Your task to perform on an android device: Set the phone to "Do not disturb". Image 0: 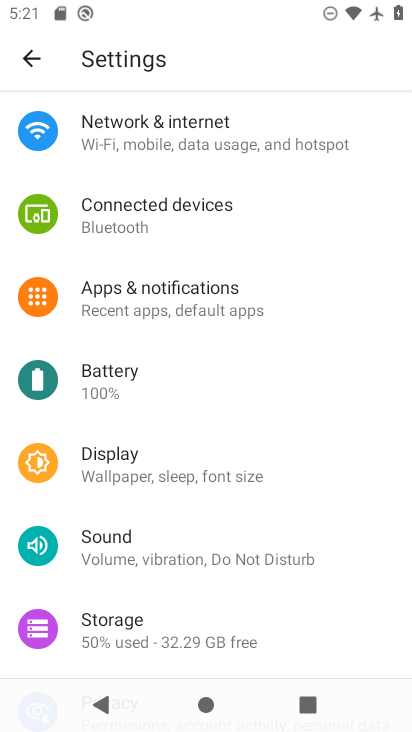
Step 0: press home button
Your task to perform on an android device: Set the phone to "Do not disturb". Image 1: 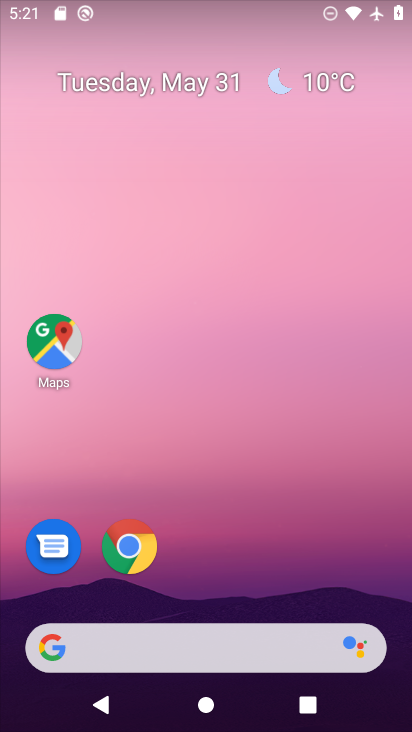
Step 1: drag from (254, 587) to (261, 13)
Your task to perform on an android device: Set the phone to "Do not disturb". Image 2: 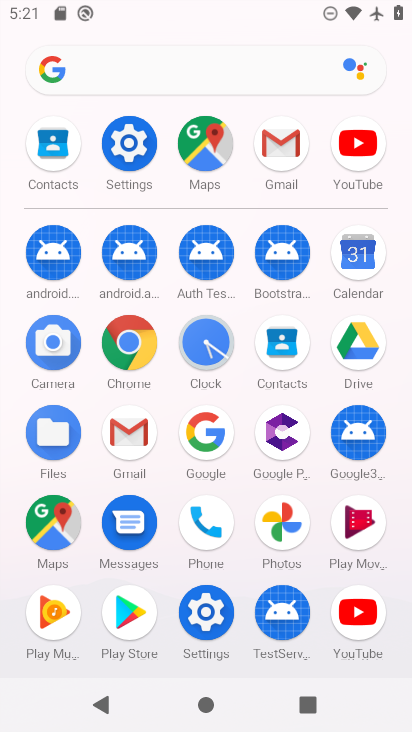
Step 2: click (147, 143)
Your task to perform on an android device: Set the phone to "Do not disturb". Image 3: 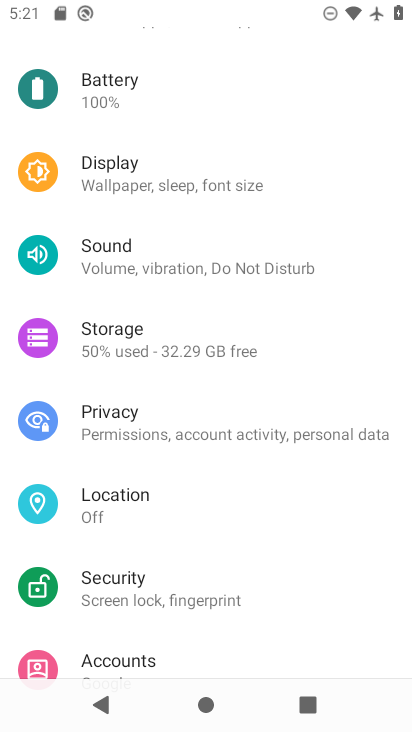
Step 3: click (133, 254)
Your task to perform on an android device: Set the phone to "Do not disturb". Image 4: 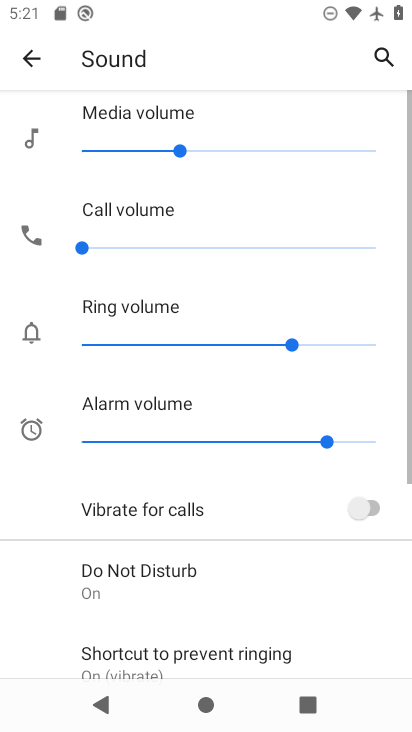
Step 4: click (117, 568)
Your task to perform on an android device: Set the phone to "Do not disturb". Image 5: 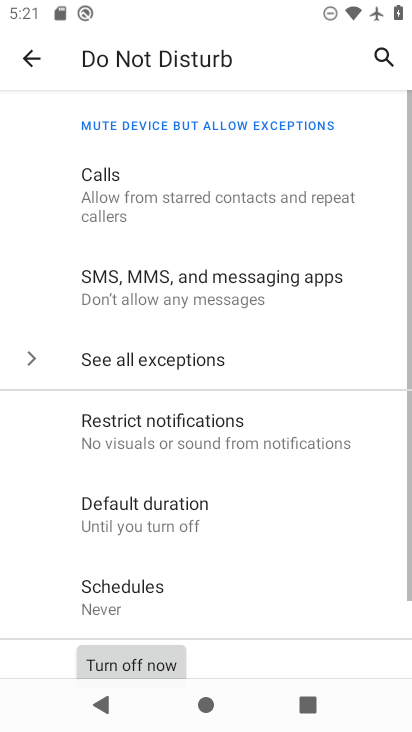
Step 5: task complete